Your task to perform on an android device: turn pop-ups off in chrome Image 0: 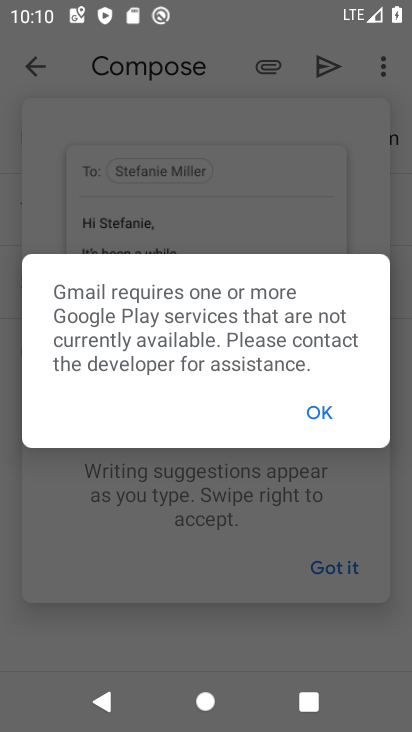
Step 0: press home button
Your task to perform on an android device: turn pop-ups off in chrome Image 1: 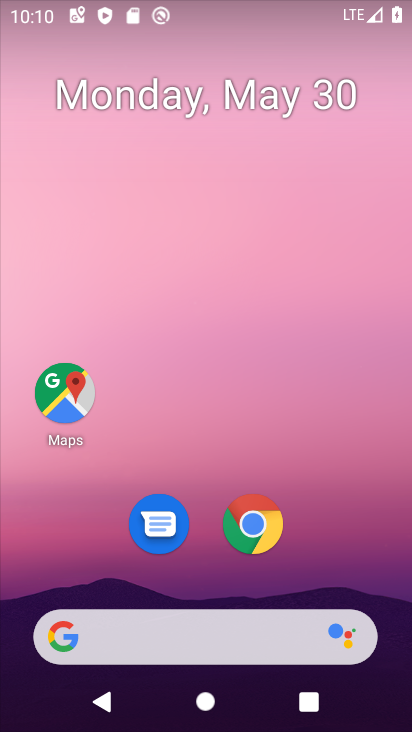
Step 1: drag from (208, 476) to (158, 76)
Your task to perform on an android device: turn pop-ups off in chrome Image 2: 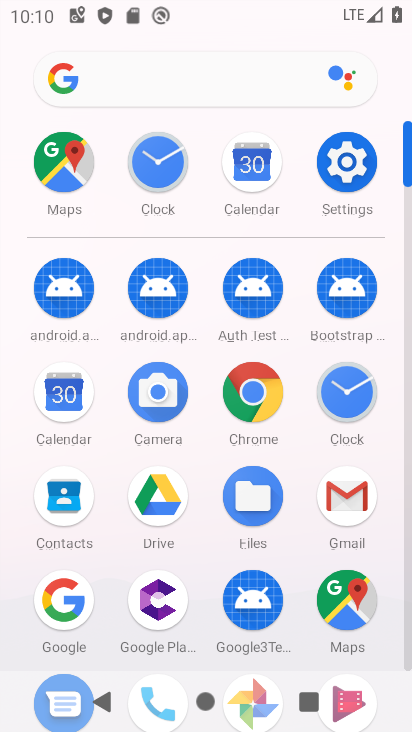
Step 2: click (256, 374)
Your task to perform on an android device: turn pop-ups off in chrome Image 3: 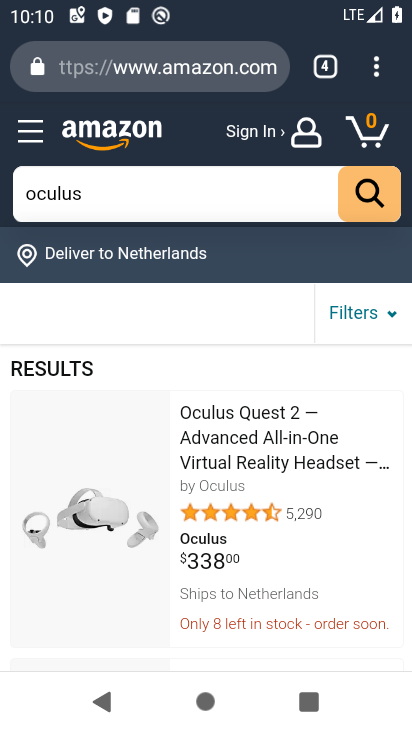
Step 3: click (371, 70)
Your task to perform on an android device: turn pop-ups off in chrome Image 4: 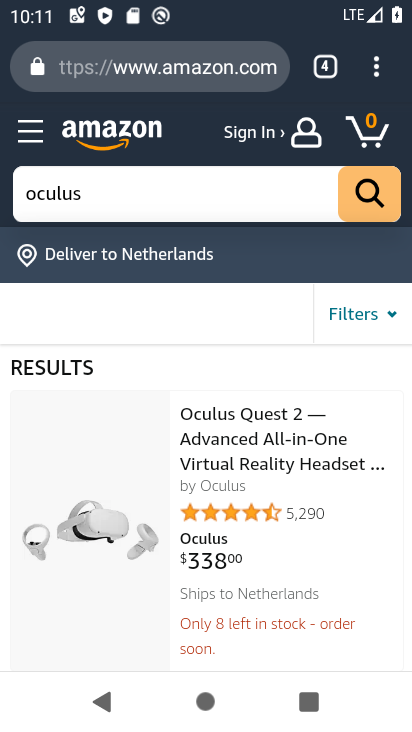
Step 4: click (377, 78)
Your task to perform on an android device: turn pop-ups off in chrome Image 5: 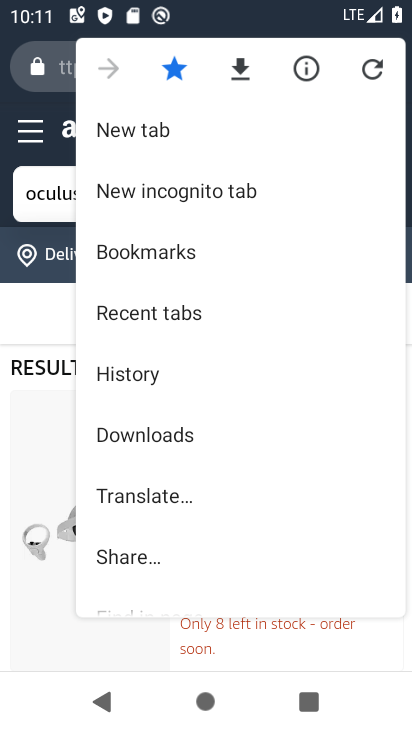
Step 5: drag from (232, 425) to (220, 208)
Your task to perform on an android device: turn pop-ups off in chrome Image 6: 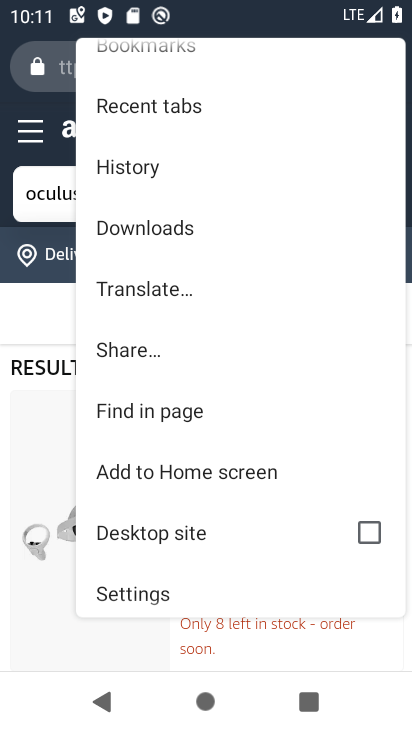
Step 6: drag from (246, 459) to (267, 245)
Your task to perform on an android device: turn pop-ups off in chrome Image 7: 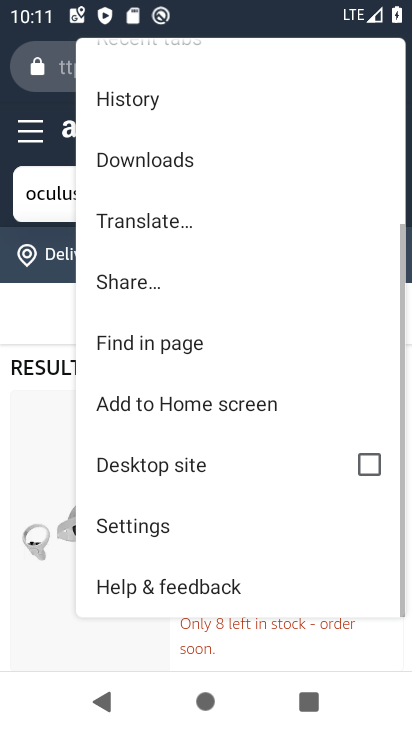
Step 7: click (168, 514)
Your task to perform on an android device: turn pop-ups off in chrome Image 8: 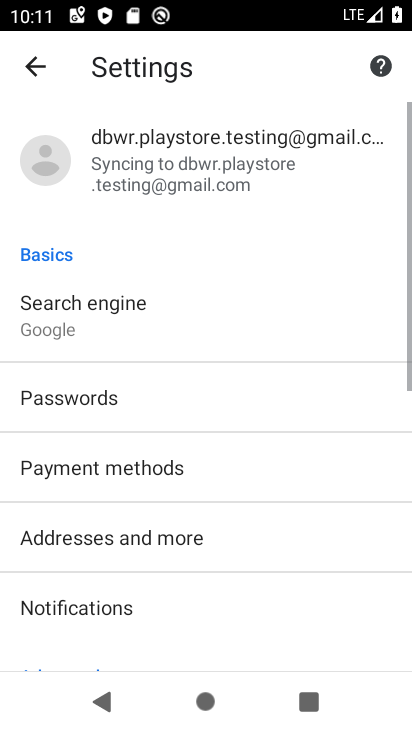
Step 8: drag from (242, 471) to (315, 11)
Your task to perform on an android device: turn pop-ups off in chrome Image 9: 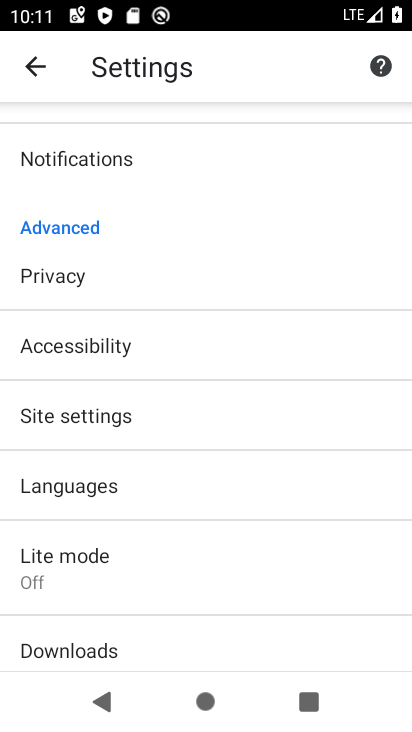
Step 9: click (271, 410)
Your task to perform on an android device: turn pop-ups off in chrome Image 10: 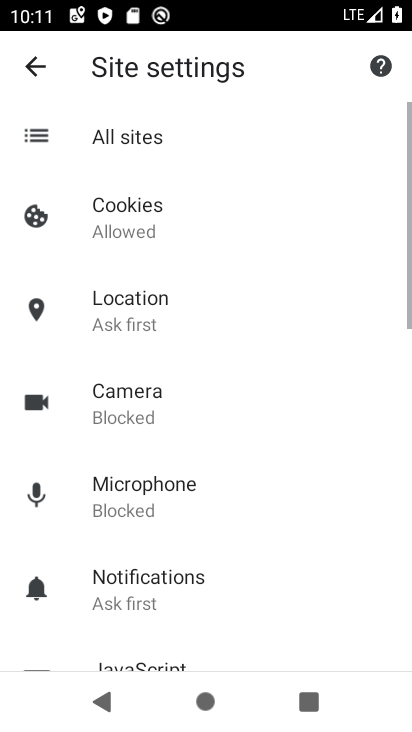
Step 10: drag from (266, 508) to (279, 126)
Your task to perform on an android device: turn pop-ups off in chrome Image 11: 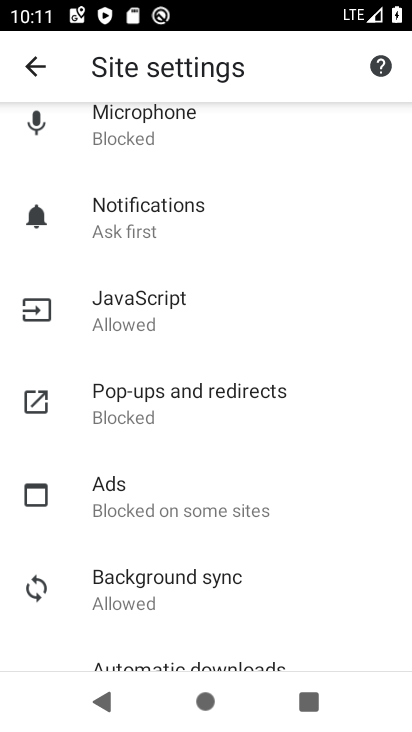
Step 11: click (245, 389)
Your task to perform on an android device: turn pop-ups off in chrome Image 12: 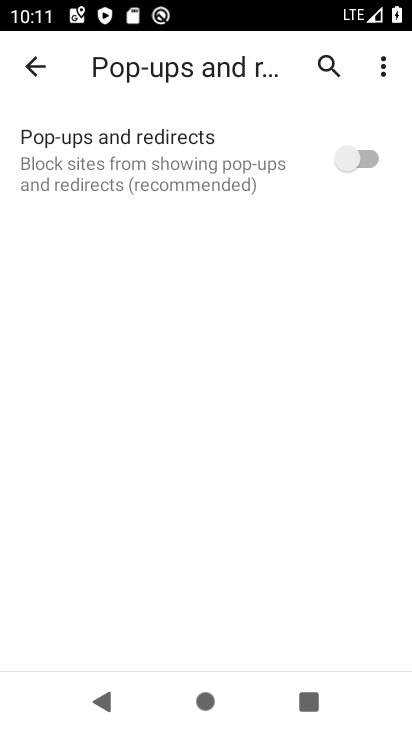
Step 12: task complete